Your task to perform on an android device: Turn off the flashlight Image 0: 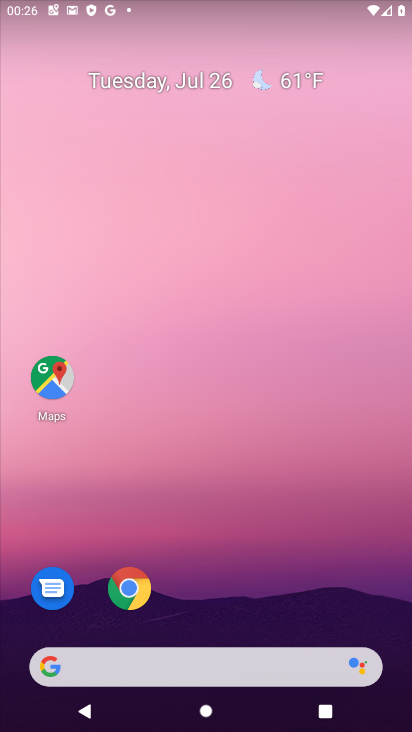
Step 0: press home button
Your task to perform on an android device: Turn off the flashlight Image 1: 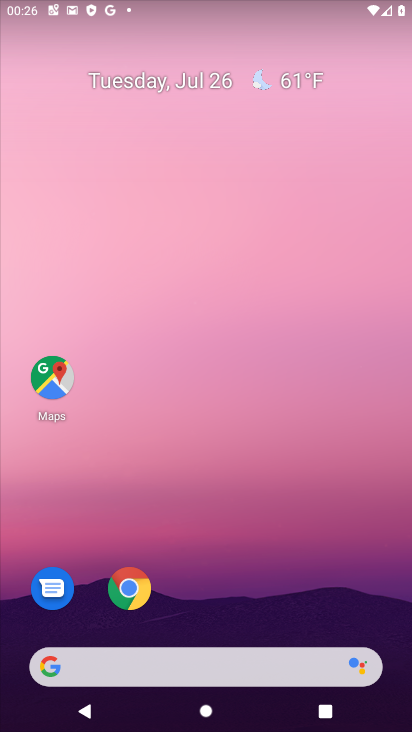
Step 1: drag from (212, 620) to (206, 0)
Your task to perform on an android device: Turn off the flashlight Image 2: 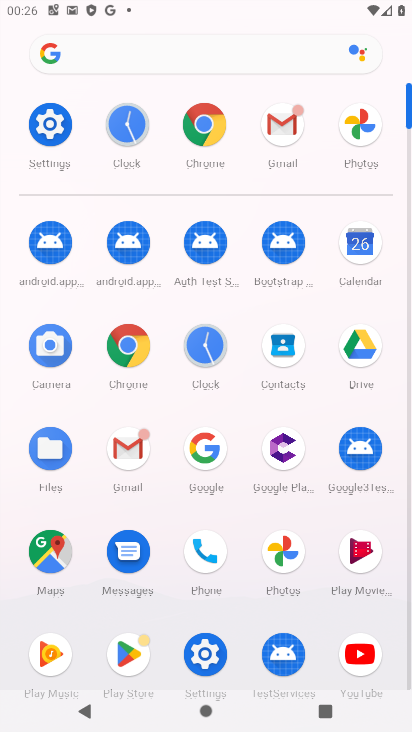
Step 2: click (43, 117)
Your task to perform on an android device: Turn off the flashlight Image 3: 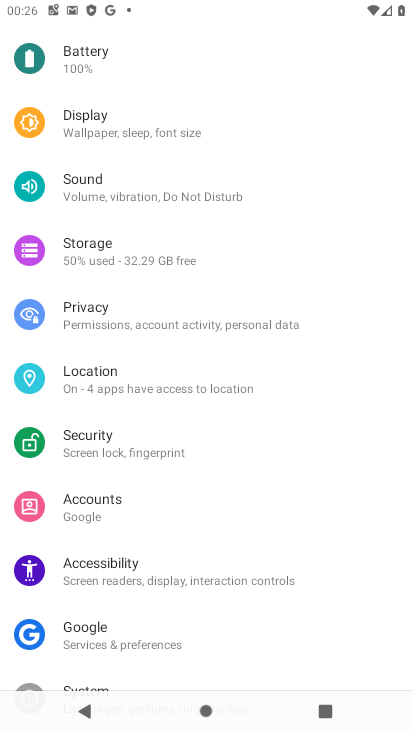
Step 3: drag from (131, 89) to (206, 620)
Your task to perform on an android device: Turn off the flashlight Image 4: 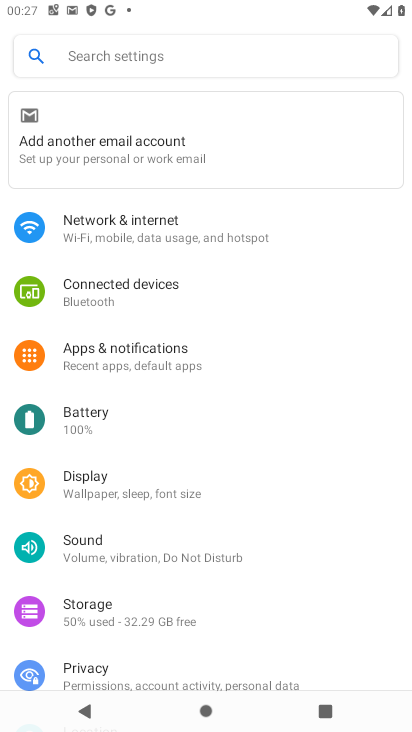
Step 4: click (104, 47)
Your task to perform on an android device: Turn off the flashlight Image 5: 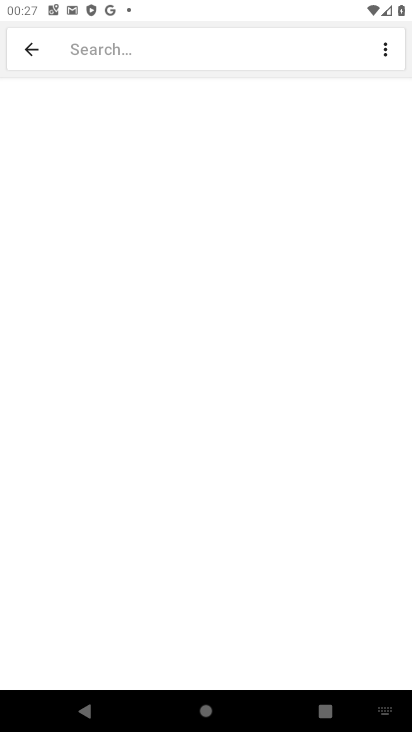
Step 5: type "flashlight"
Your task to perform on an android device: Turn off the flashlight Image 6: 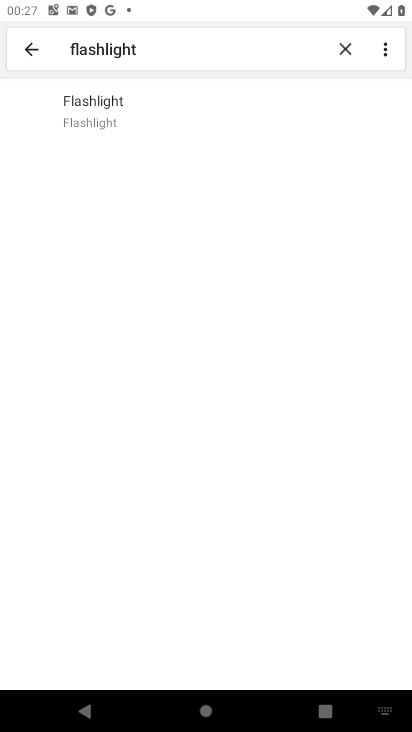
Step 6: task complete